Your task to perform on an android device: Turn off the flashlight Image 0: 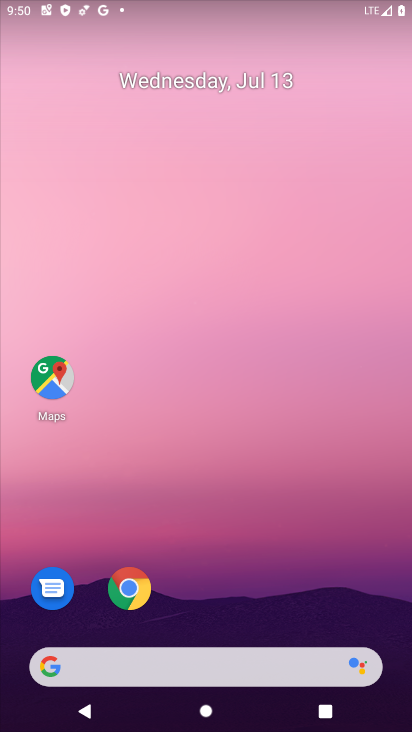
Step 0: drag from (231, 593) to (251, 77)
Your task to perform on an android device: Turn off the flashlight Image 1: 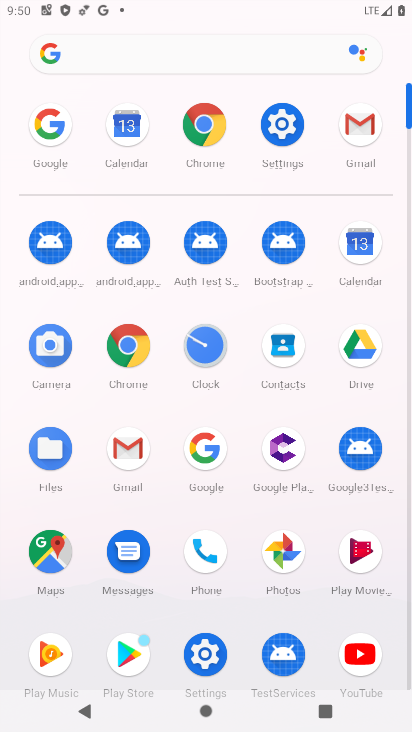
Step 1: click (288, 124)
Your task to perform on an android device: Turn off the flashlight Image 2: 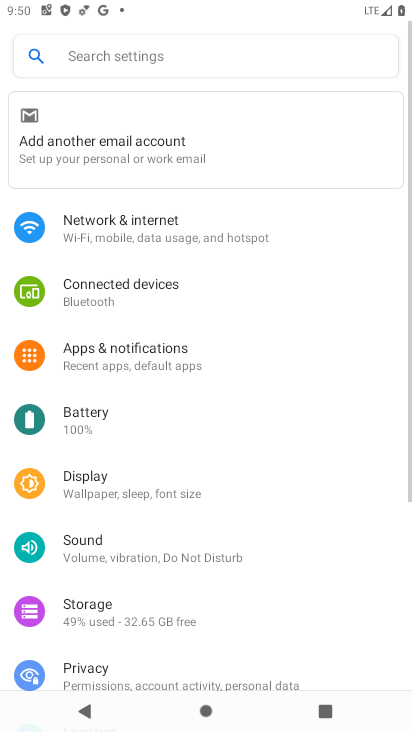
Step 2: click (135, 57)
Your task to perform on an android device: Turn off the flashlight Image 3: 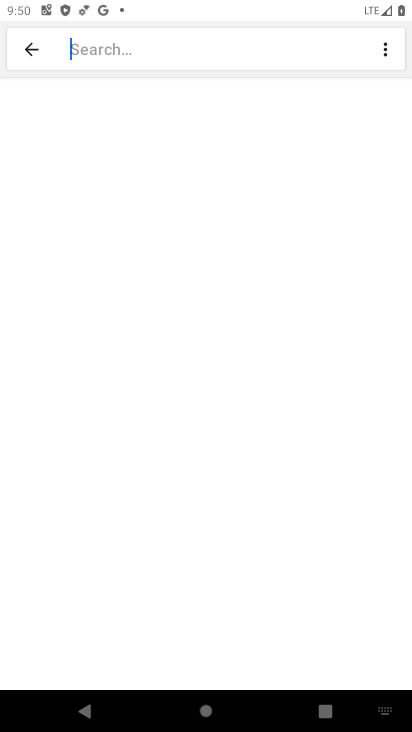
Step 3: type "flashlight"
Your task to perform on an android device: Turn off the flashlight Image 4: 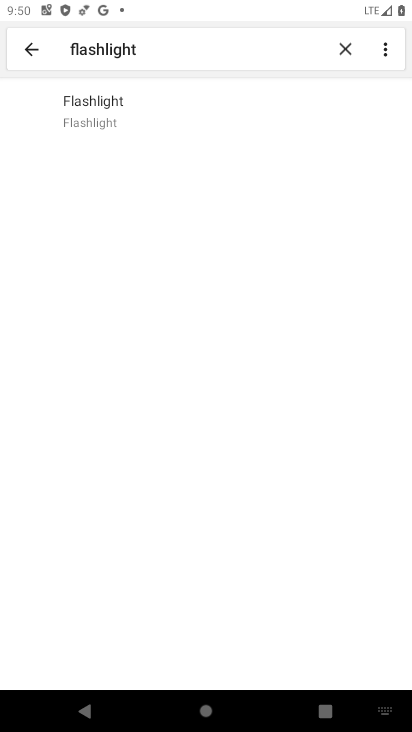
Step 4: task complete